Your task to perform on an android device: Open the stopwatch Image 0: 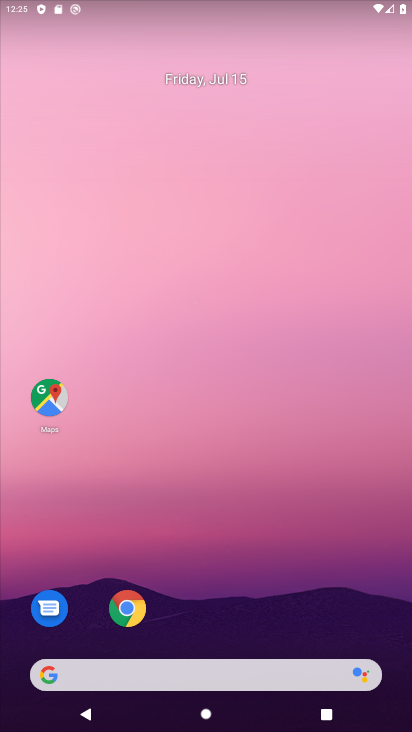
Step 0: drag from (242, 599) to (242, 95)
Your task to perform on an android device: Open the stopwatch Image 1: 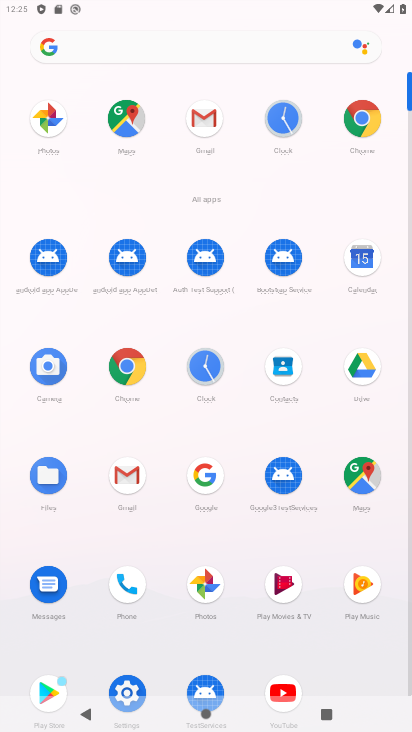
Step 1: click (202, 367)
Your task to perform on an android device: Open the stopwatch Image 2: 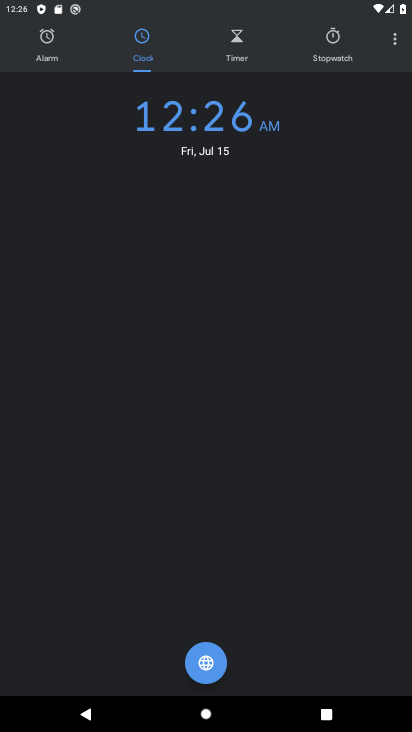
Step 2: click (343, 39)
Your task to perform on an android device: Open the stopwatch Image 3: 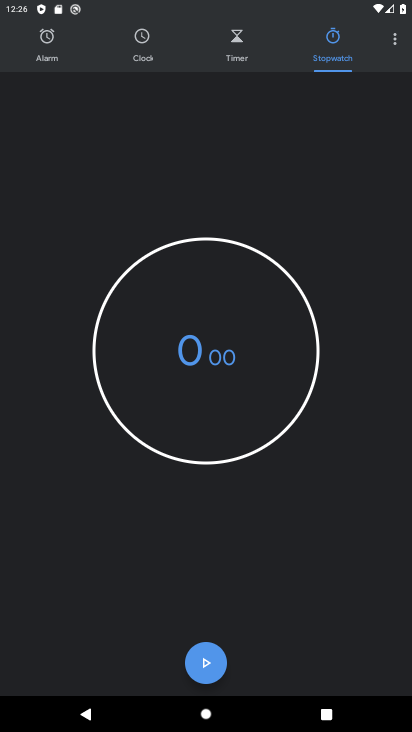
Step 3: task complete